Your task to perform on an android device: turn on data saver in the chrome app Image 0: 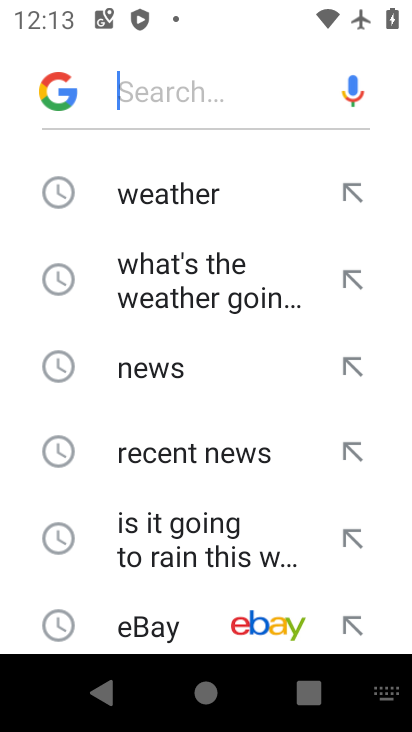
Step 0: drag from (259, 335) to (275, 270)
Your task to perform on an android device: turn on data saver in the chrome app Image 1: 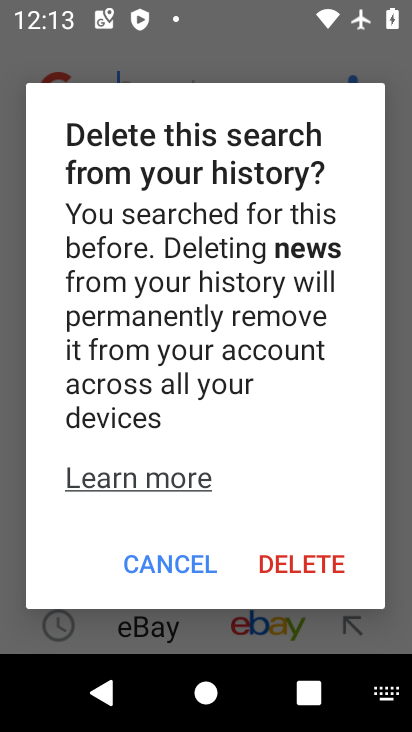
Step 1: press home button
Your task to perform on an android device: turn on data saver in the chrome app Image 2: 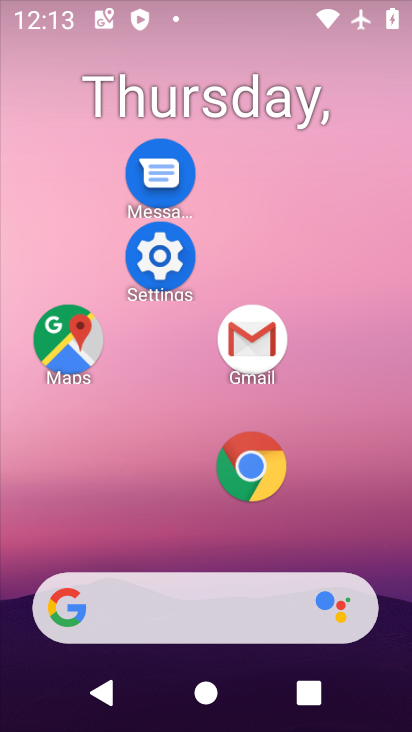
Step 2: drag from (213, 565) to (246, 368)
Your task to perform on an android device: turn on data saver in the chrome app Image 3: 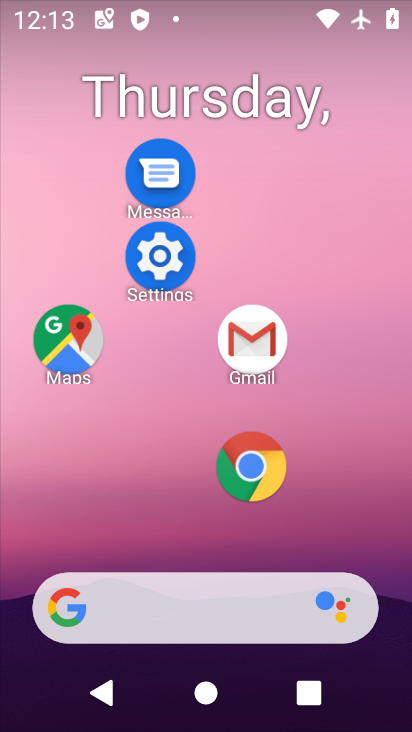
Step 3: click (242, 453)
Your task to perform on an android device: turn on data saver in the chrome app Image 4: 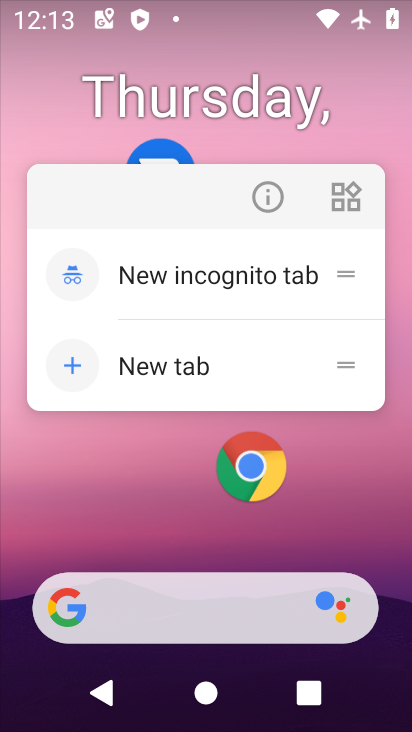
Step 4: click (270, 185)
Your task to perform on an android device: turn on data saver in the chrome app Image 5: 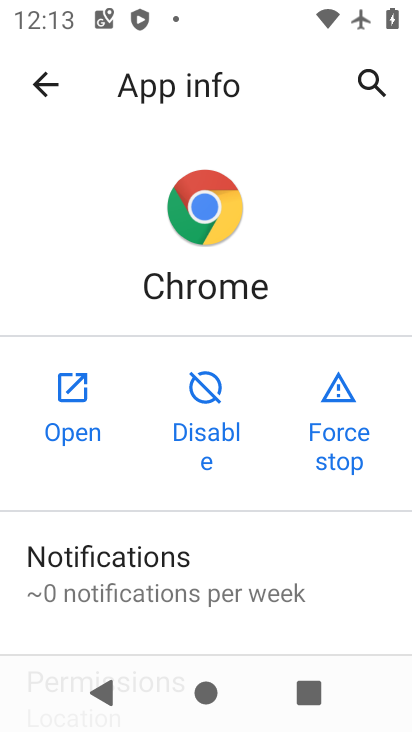
Step 5: click (81, 376)
Your task to perform on an android device: turn on data saver in the chrome app Image 6: 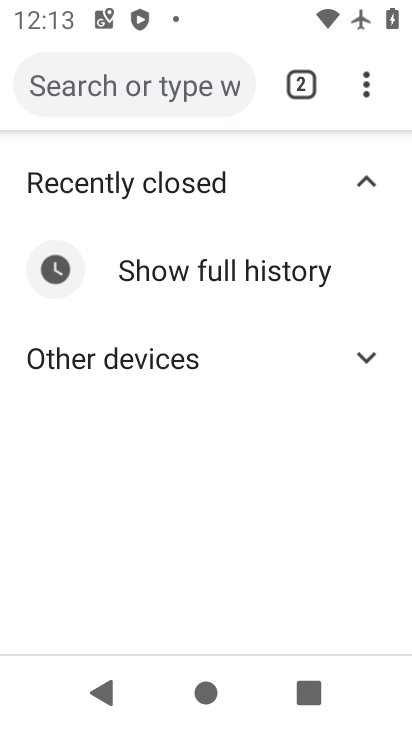
Step 6: drag from (368, 87) to (94, 520)
Your task to perform on an android device: turn on data saver in the chrome app Image 7: 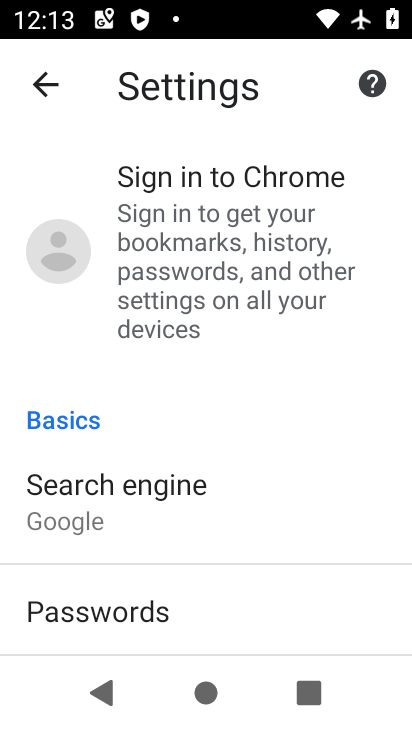
Step 7: drag from (170, 505) to (232, 224)
Your task to perform on an android device: turn on data saver in the chrome app Image 8: 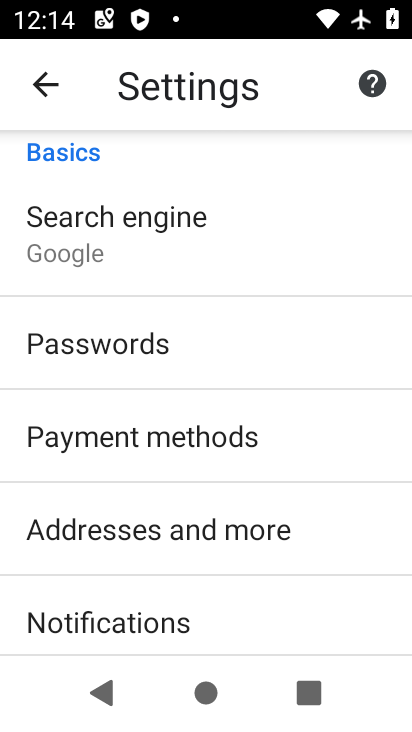
Step 8: drag from (130, 588) to (239, 253)
Your task to perform on an android device: turn on data saver in the chrome app Image 9: 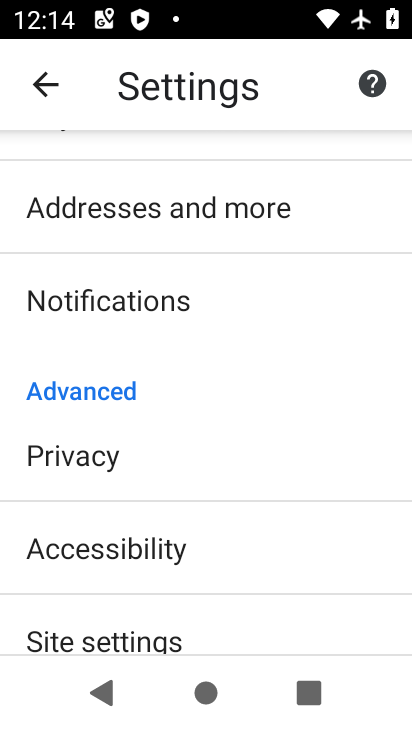
Step 9: drag from (158, 607) to (272, 153)
Your task to perform on an android device: turn on data saver in the chrome app Image 10: 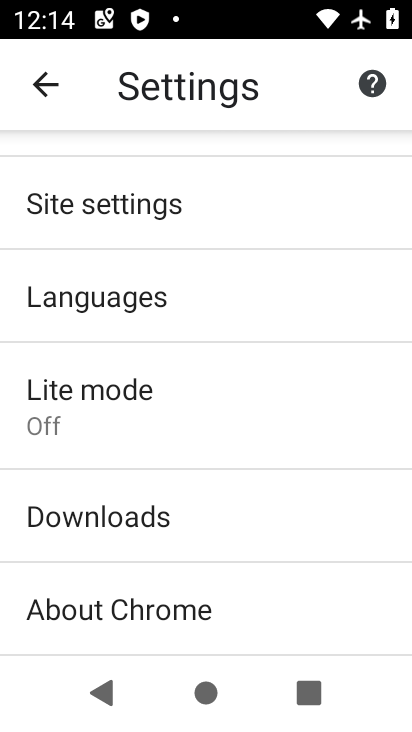
Step 10: click (128, 417)
Your task to perform on an android device: turn on data saver in the chrome app Image 11: 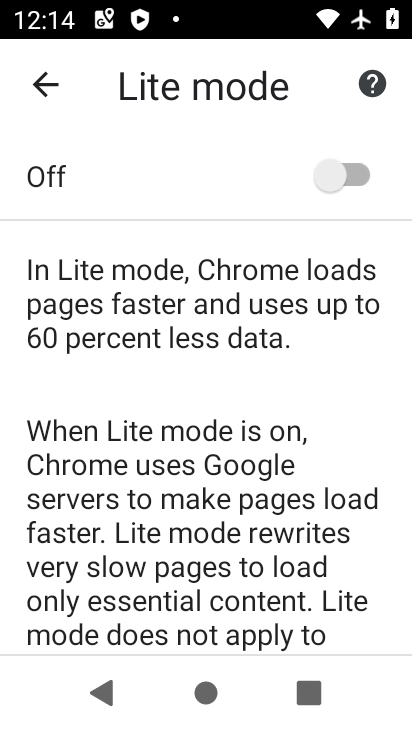
Step 11: click (308, 175)
Your task to perform on an android device: turn on data saver in the chrome app Image 12: 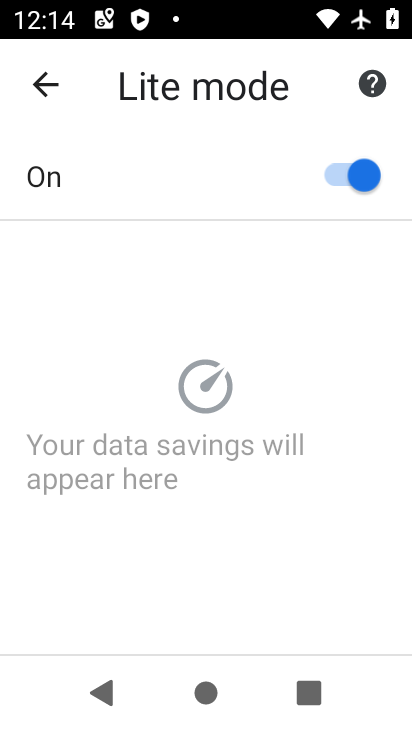
Step 12: task complete